Your task to perform on an android device: open chrome privacy settings Image 0: 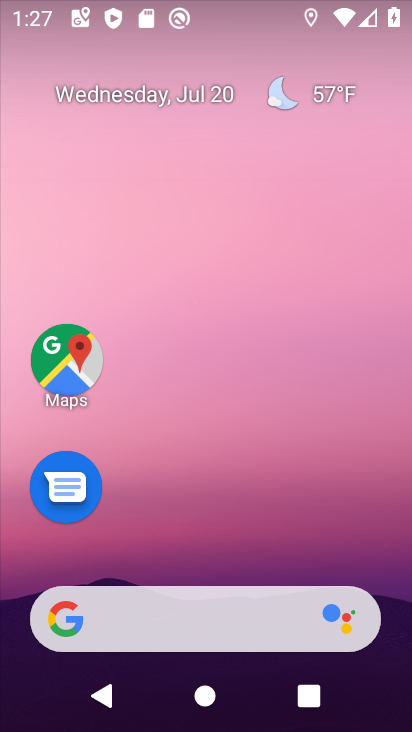
Step 0: drag from (204, 525) to (286, 0)
Your task to perform on an android device: open chrome privacy settings Image 1: 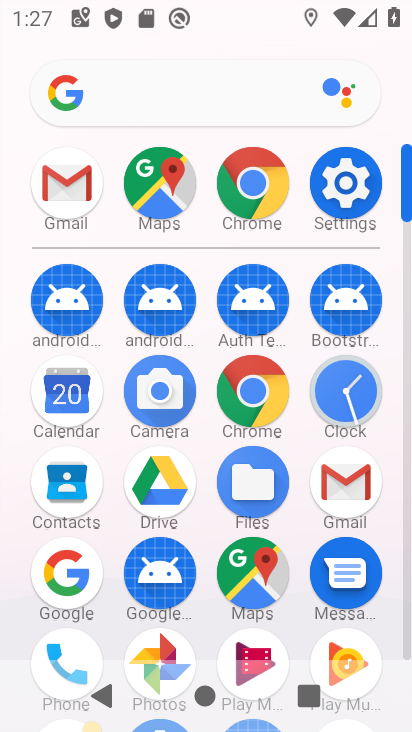
Step 1: click (251, 182)
Your task to perform on an android device: open chrome privacy settings Image 2: 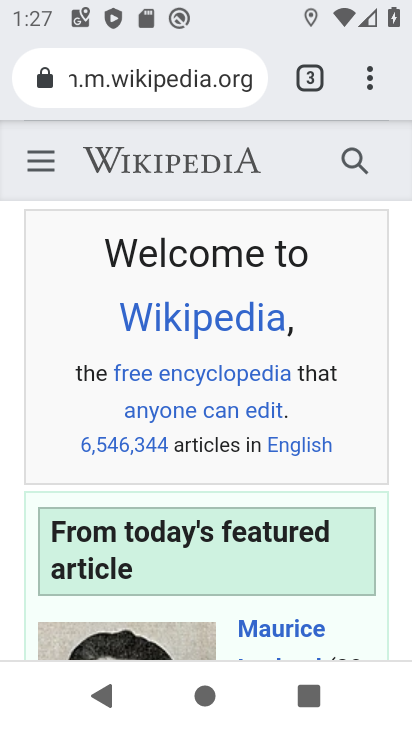
Step 2: drag from (375, 72) to (105, 545)
Your task to perform on an android device: open chrome privacy settings Image 3: 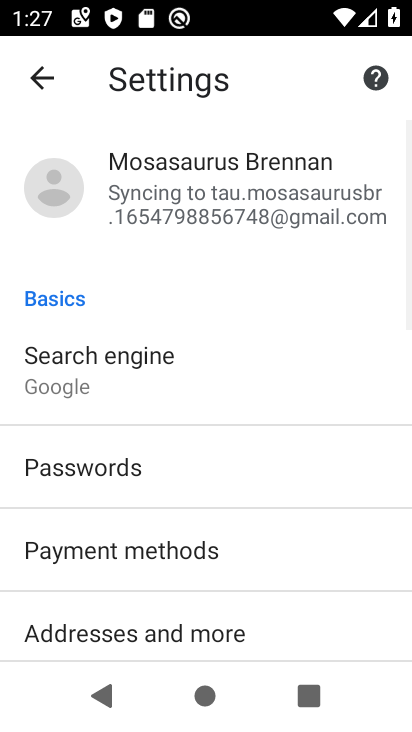
Step 3: drag from (130, 419) to (228, 130)
Your task to perform on an android device: open chrome privacy settings Image 4: 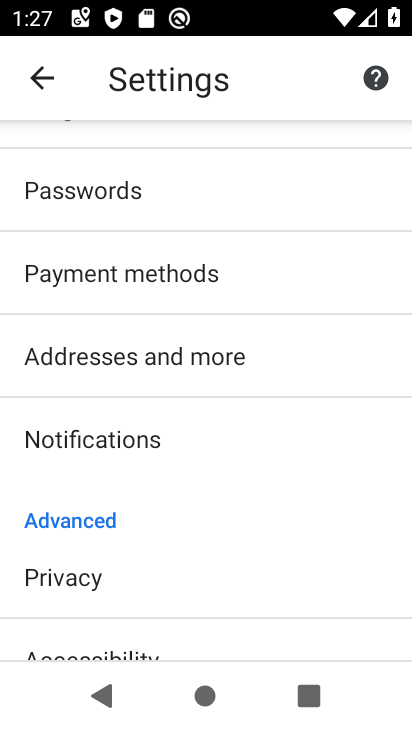
Step 4: click (87, 574)
Your task to perform on an android device: open chrome privacy settings Image 5: 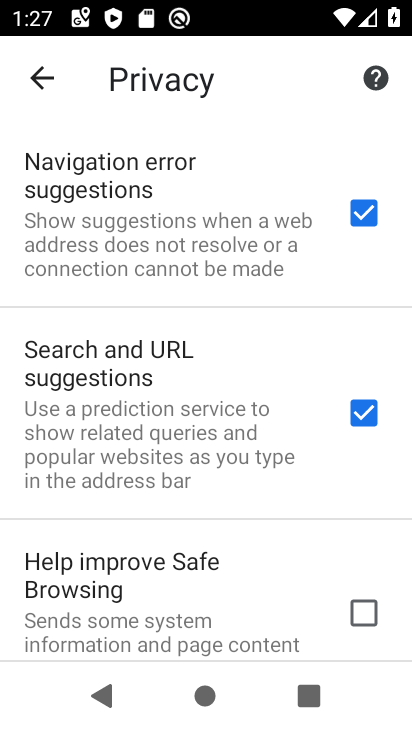
Step 5: task complete